Your task to perform on an android device: see creations saved in the google photos Image 0: 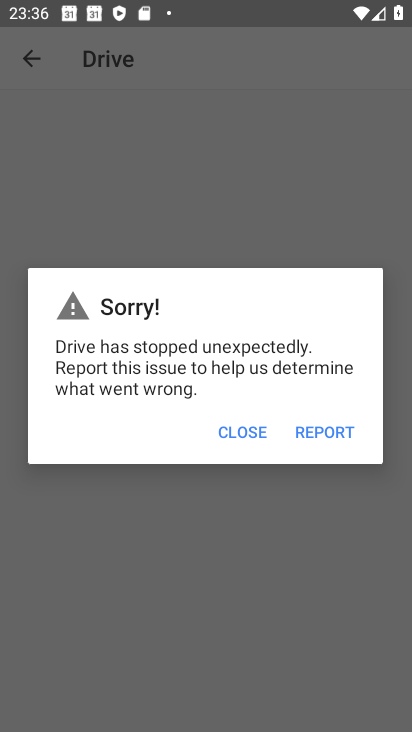
Step 0: press home button
Your task to perform on an android device: see creations saved in the google photos Image 1: 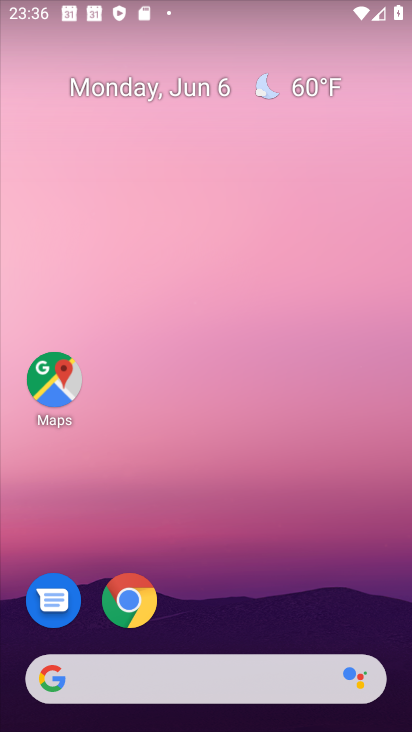
Step 1: drag from (212, 701) to (220, 144)
Your task to perform on an android device: see creations saved in the google photos Image 2: 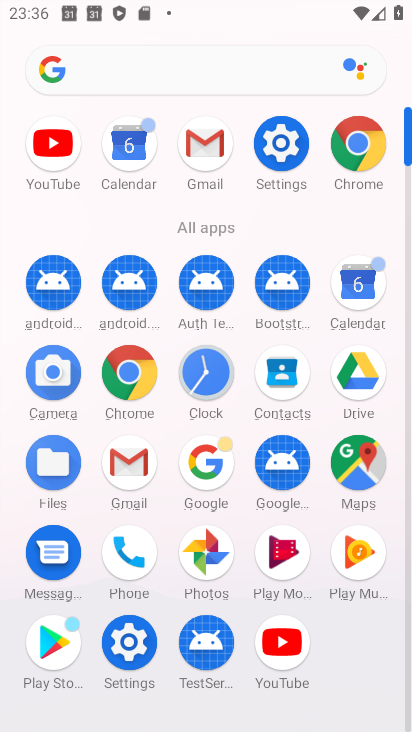
Step 2: click (204, 553)
Your task to perform on an android device: see creations saved in the google photos Image 3: 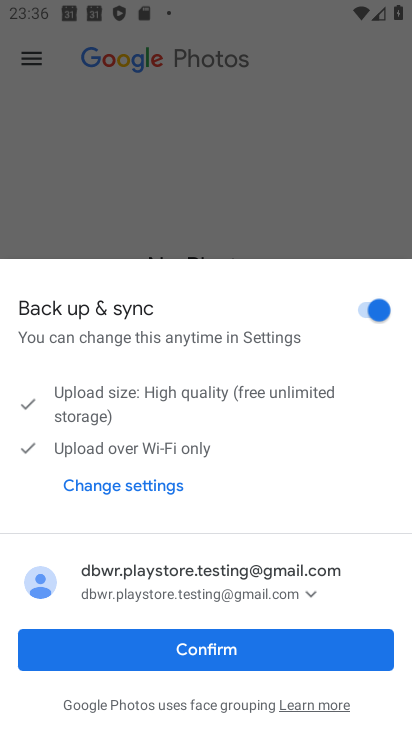
Step 3: click (194, 655)
Your task to perform on an android device: see creations saved in the google photos Image 4: 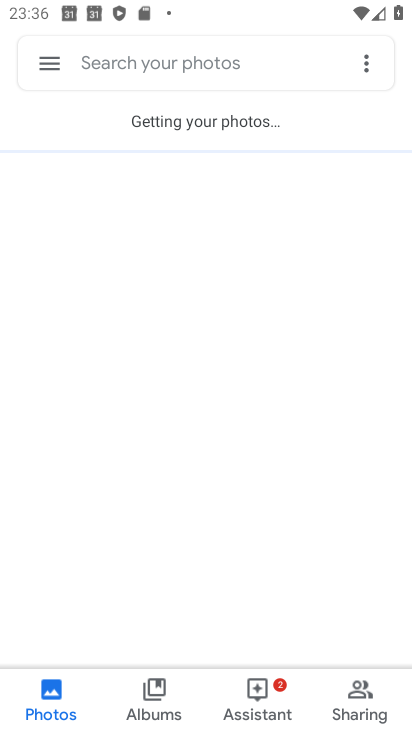
Step 4: click (149, 63)
Your task to perform on an android device: see creations saved in the google photos Image 5: 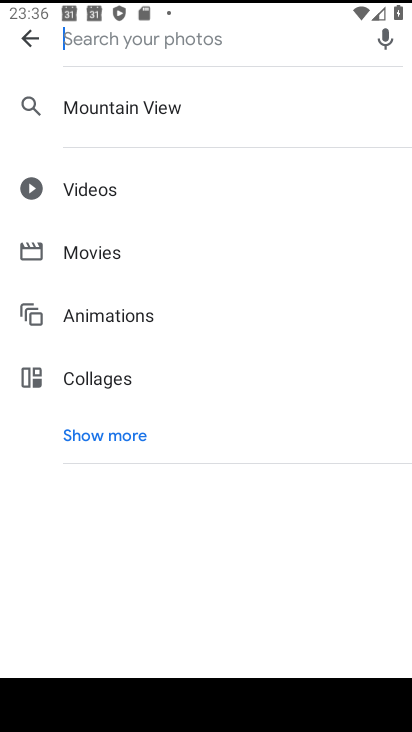
Step 5: click (105, 437)
Your task to perform on an android device: see creations saved in the google photos Image 6: 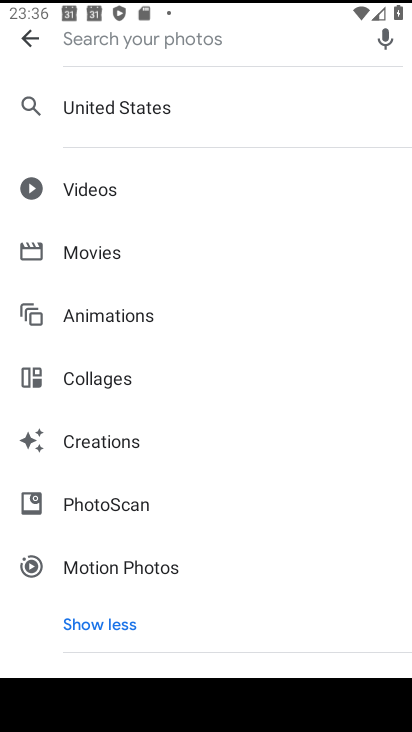
Step 6: click (107, 438)
Your task to perform on an android device: see creations saved in the google photos Image 7: 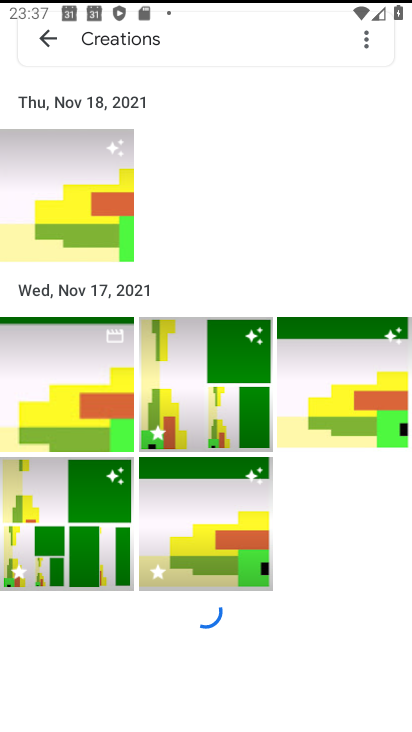
Step 7: task complete